Your task to perform on an android device: See recent photos Image 0: 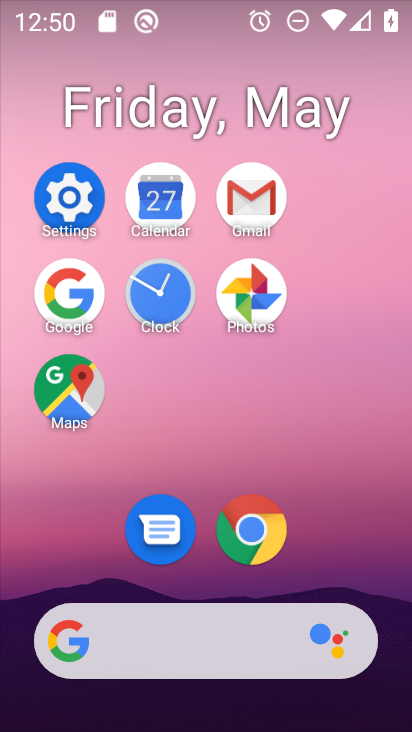
Step 0: click (264, 288)
Your task to perform on an android device: See recent photos Image 1: 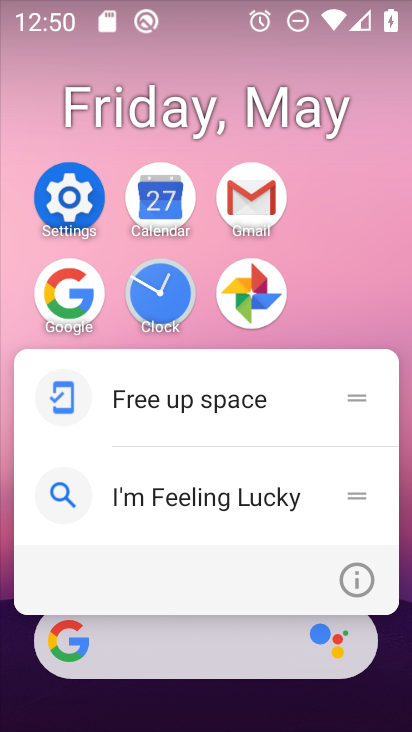
Step 1: click (264, 288)
Your task to perform on an android device: See recent photos Image 2: 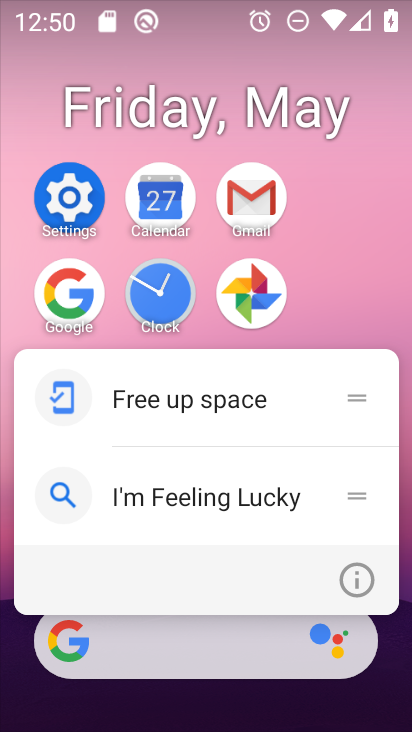
Step 2: click (280, 292)
Your task to perform on an android device: See recent photos Image 3: 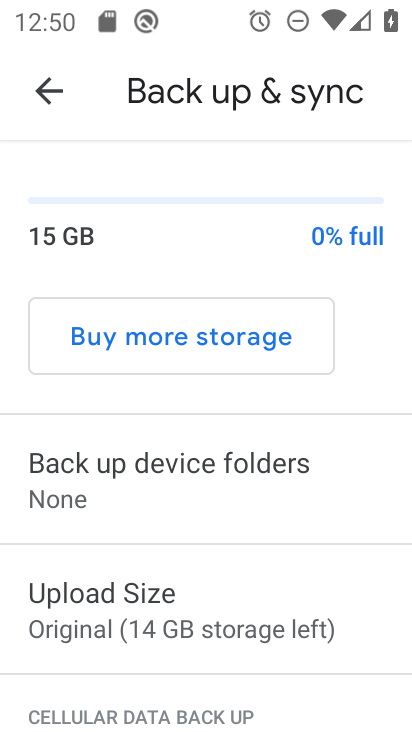
Step 3: click (74, 100)
Your task to perform on an android device: See recent photos Image 4: 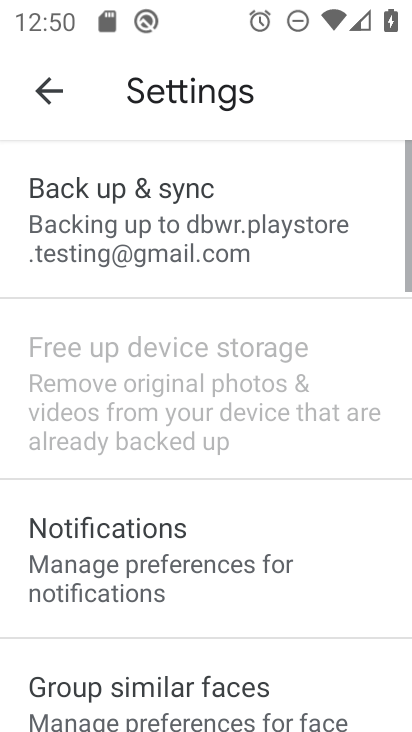
Step 4: click (48, 106)
Your task to perform on an android device: See recent photos Image 5: 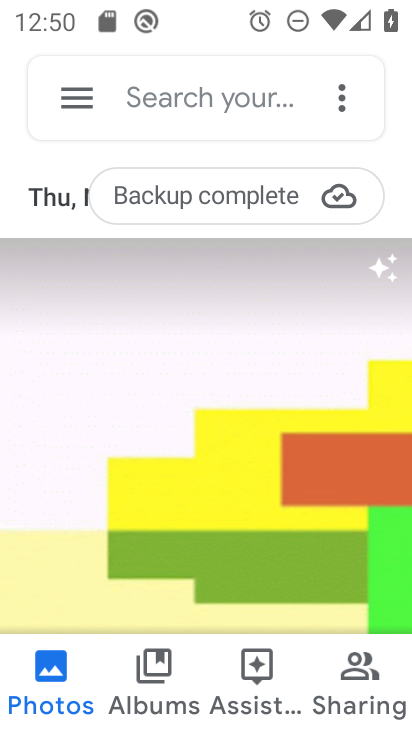
Step 5: task complete